Your task to perform on an android device: turn off priority inbox in the gmail app Image 0: 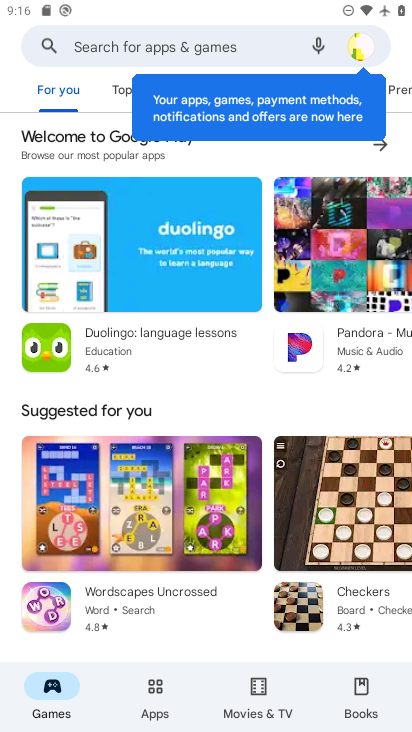
Step 0: press home button
Your task to perform on an android device: turn off priority inbox in the gmail app Image 1: 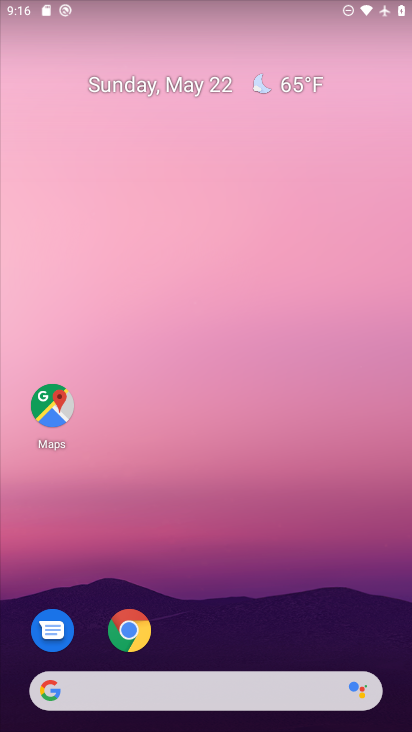
Step 1: drag from (97, 697) to (250, 133)
Your task to perform on an android device: turn off priority inbox in the gmail app Image 2: 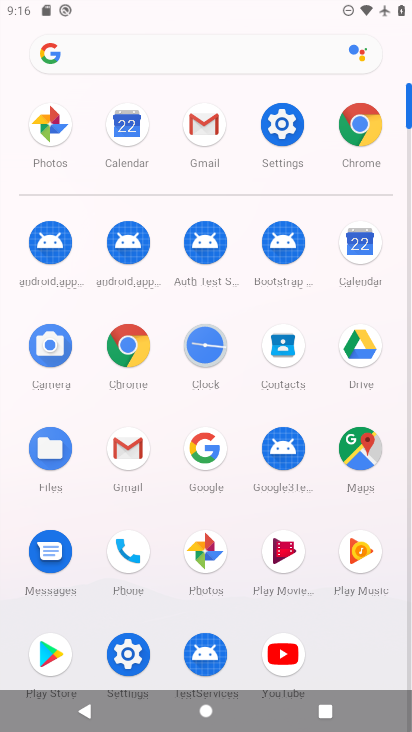
Step 2: click (202, 136)
Your task to perform on an android device: turn off priority inbox in the gmail app Image 3: 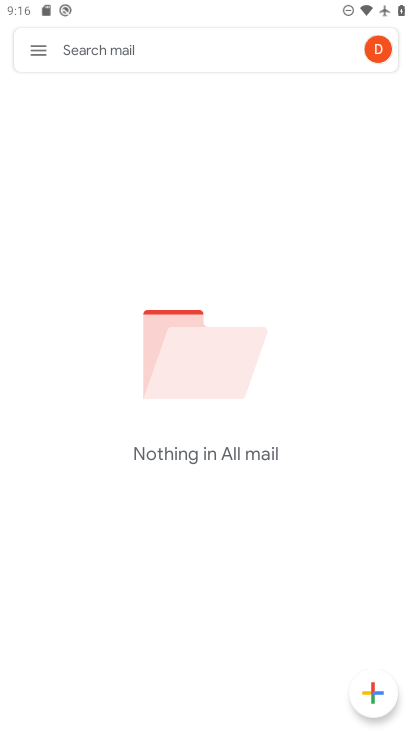
Step 3: click (34, 43)
Your task to perform on an android device: turn off priority inbox in the gmail app Image 4: 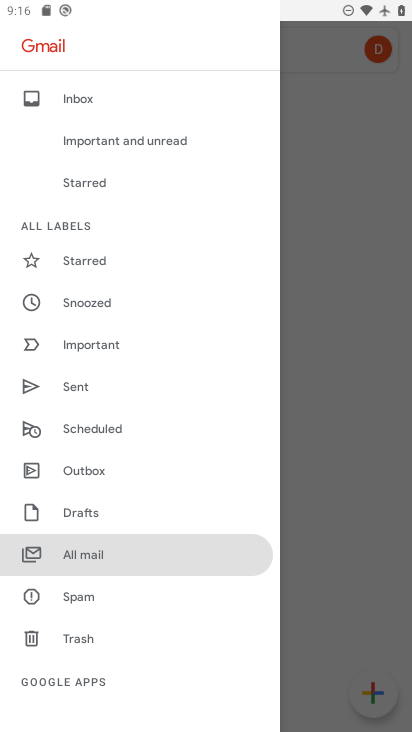
Step 4: drag from (126, 627) to (198, 108)
Your task to perform on an android device: turn off priority inbox in the gmail app Image 5: 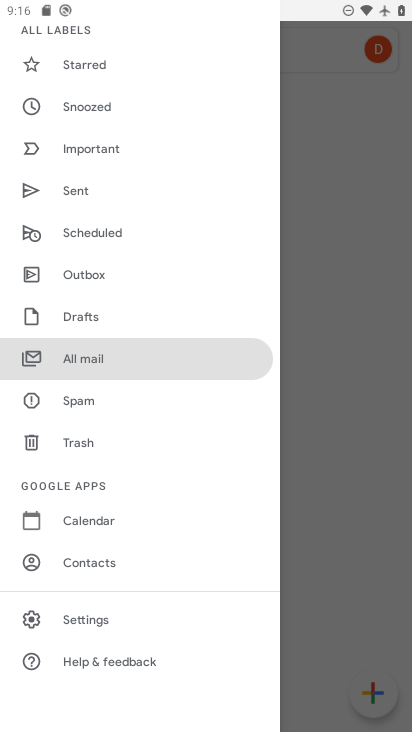
Step 5: click (102, 620)
Your task to perform on an android device: turn off priority inbox in the gmail app Image 6: 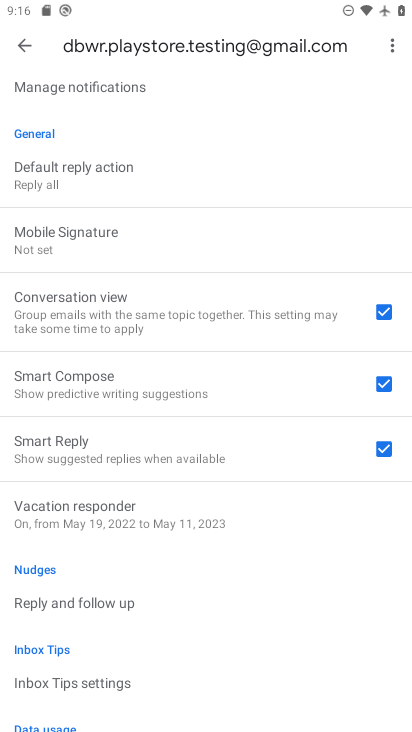
Step 6: drag from (237, 139) to (245, 603)
Your task to perform on an android device: turn off priority inbox in the gmail app Image 7: 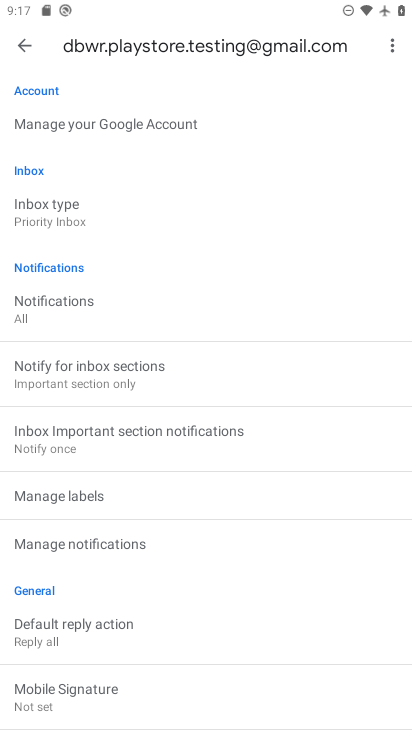
Step 7: click (72, 207)
Your task to perform on an android device: turn off priority inbox in the gmail app Image 8: 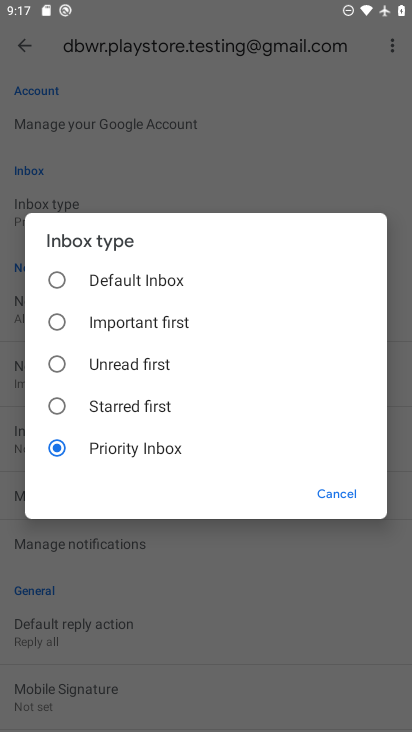
Step 8: click (58, 277)
Your task to perform on an android device: turn off priority inbox in the gmail app Image 9: 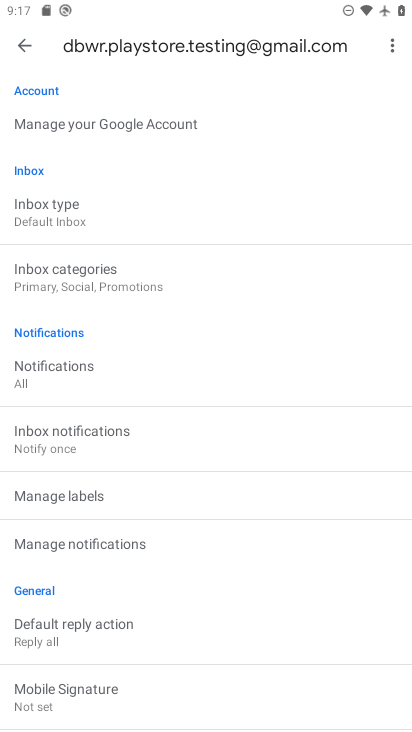
Step 9: task complete